Your task to perform on an android device: Show me the alarms in the clock app Image 0: 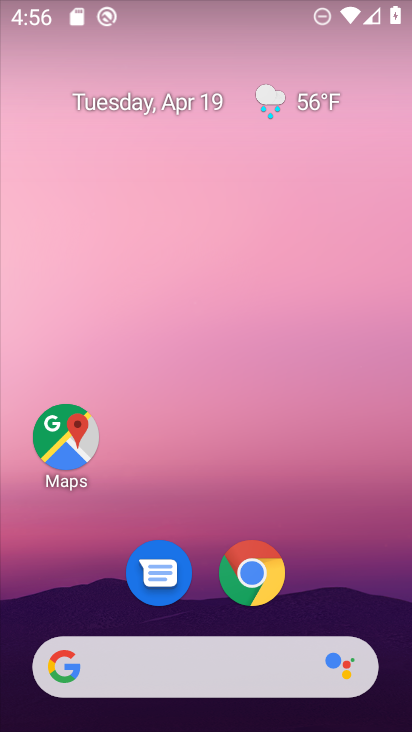
Step 0: drag from (367, 560) to (346, 38)
Your task to perform on an android device: Show me the alarms in the clock app Image 1: 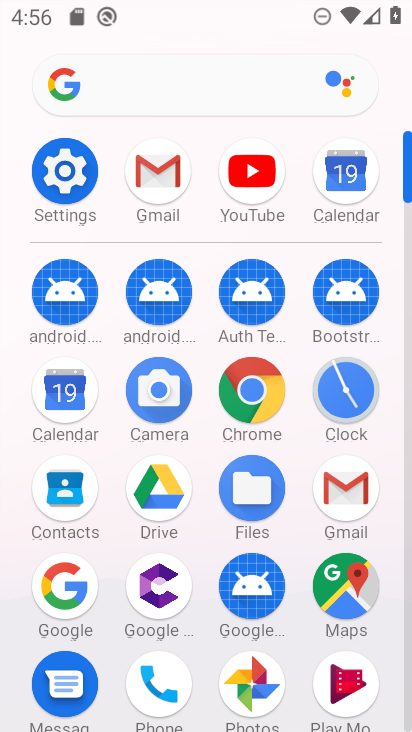
Step 1: click (349, 393)
Your task to perform on an android device: Show me the alarms in the clock app Image 2: 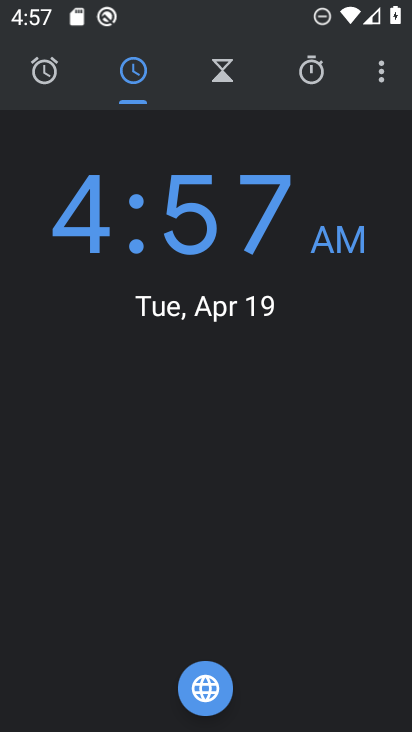
Step 2: click (53, 80)
Your task to perform on an android device: Show me the alarms in the clock app Image 3: 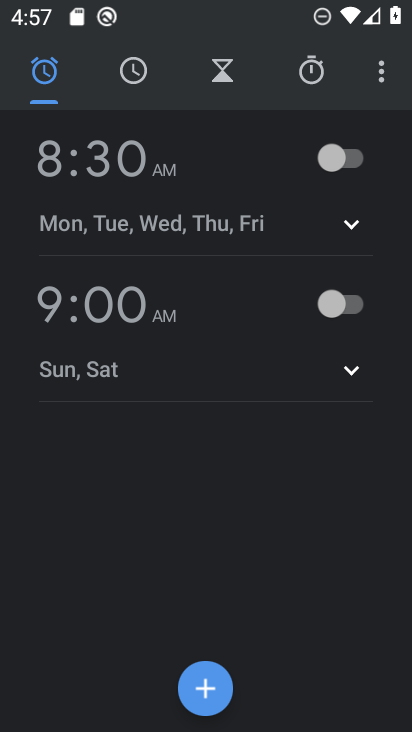
Step 3: task complete